Your task to perform on an android device: turn off improve location accuracy Image 0: 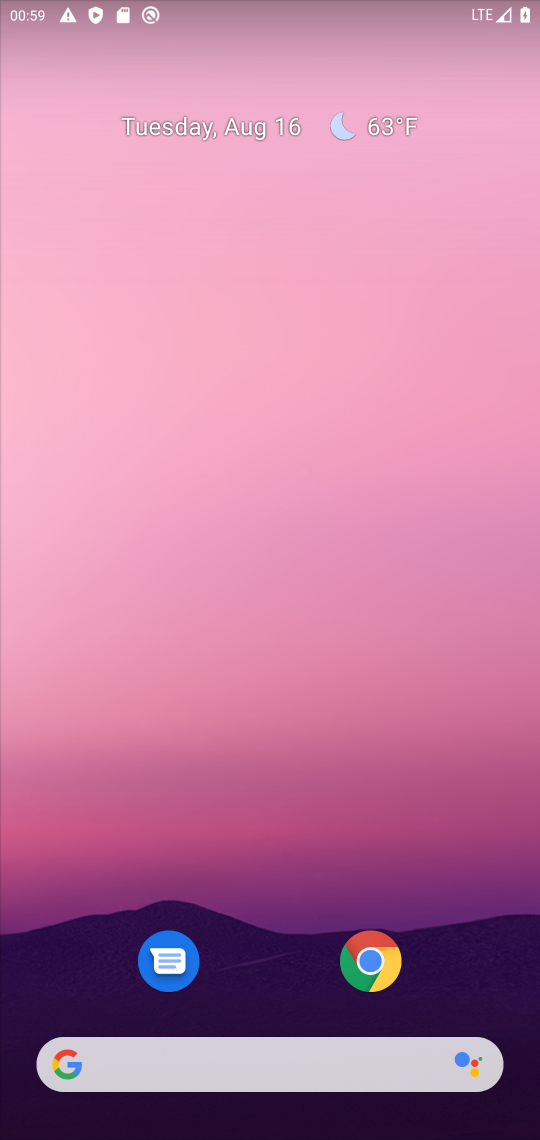
Step 0: press home button
Your task to perform on an android device: turn off improve location accuracy Image 1: 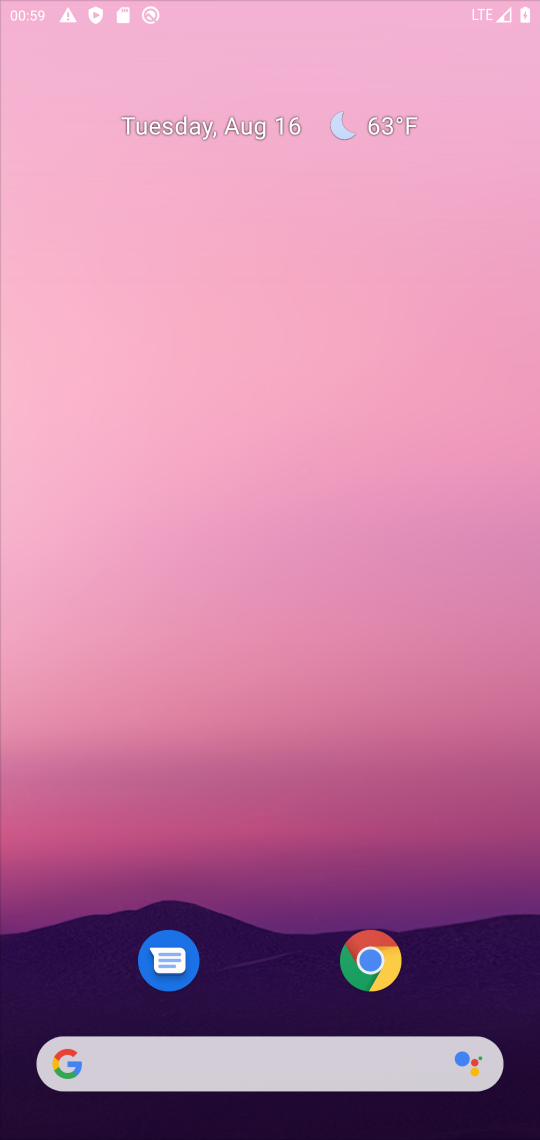
Step 1: press home button
Your task to perform on an android device: turn off improve location accuracy Image 2: 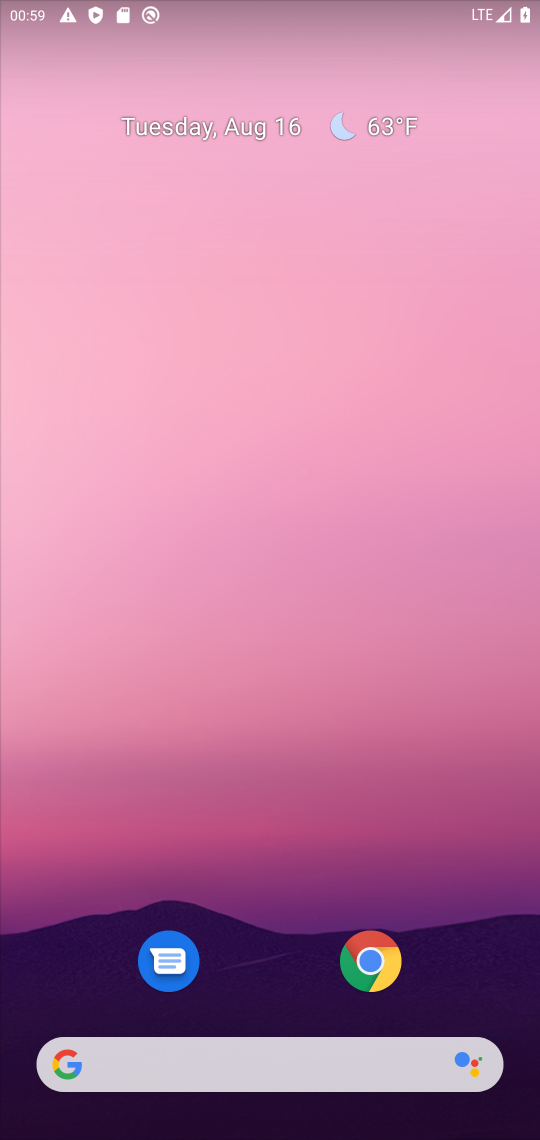
Step 2: drag from (211, 1046) to (461, 95)
Your task to perform on an android device: turn off improve location accuracy Image 3: 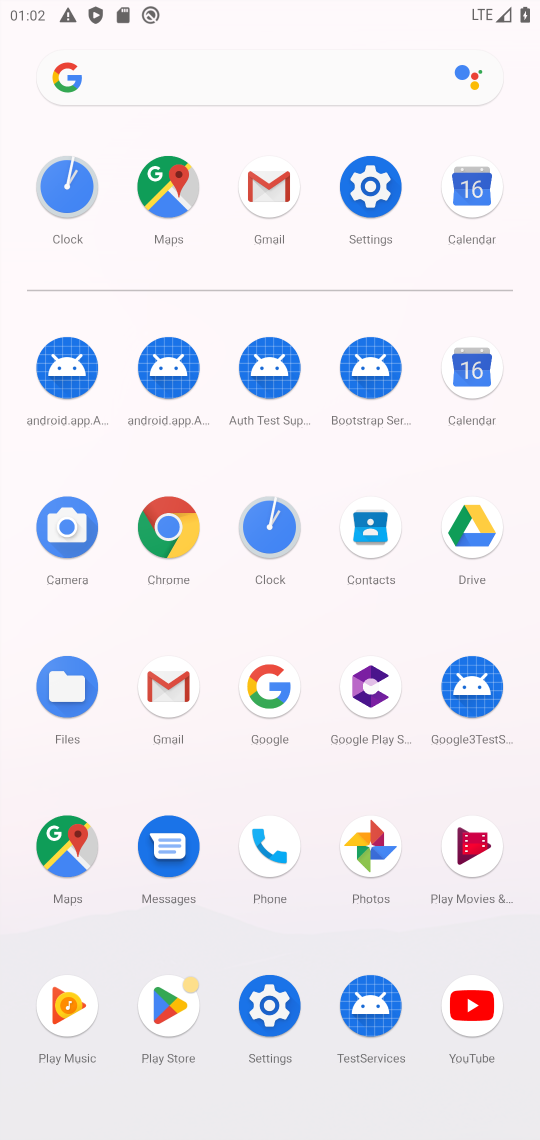
Step 3: click (274, 986)
Your task to perform on an android device: turn off improve location accuracy Image 4: 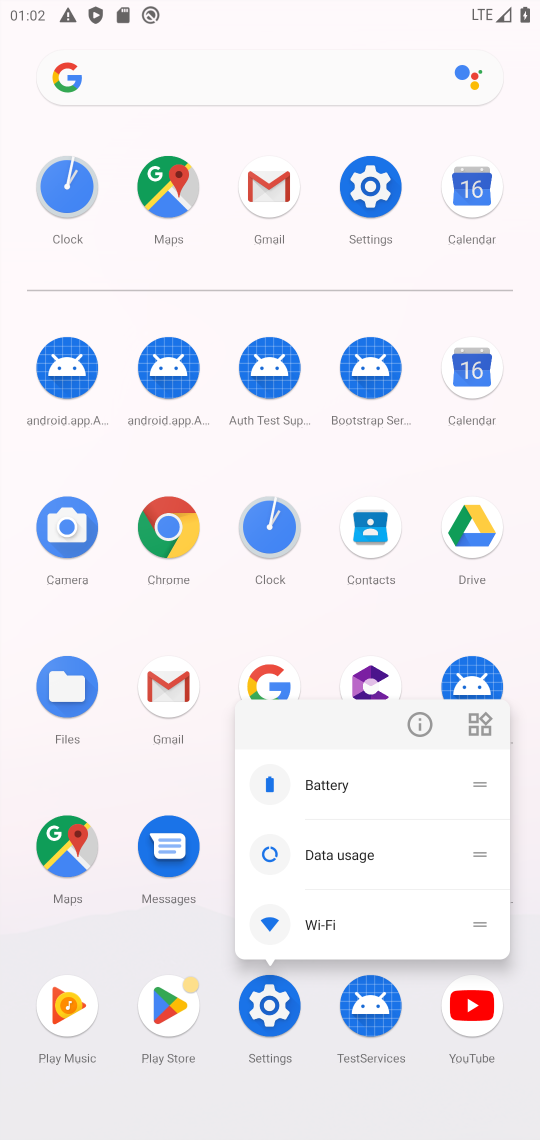
Step 4: click (274, 986)
Your task to perform on an android device: turn off improve location accuracy Image 5: 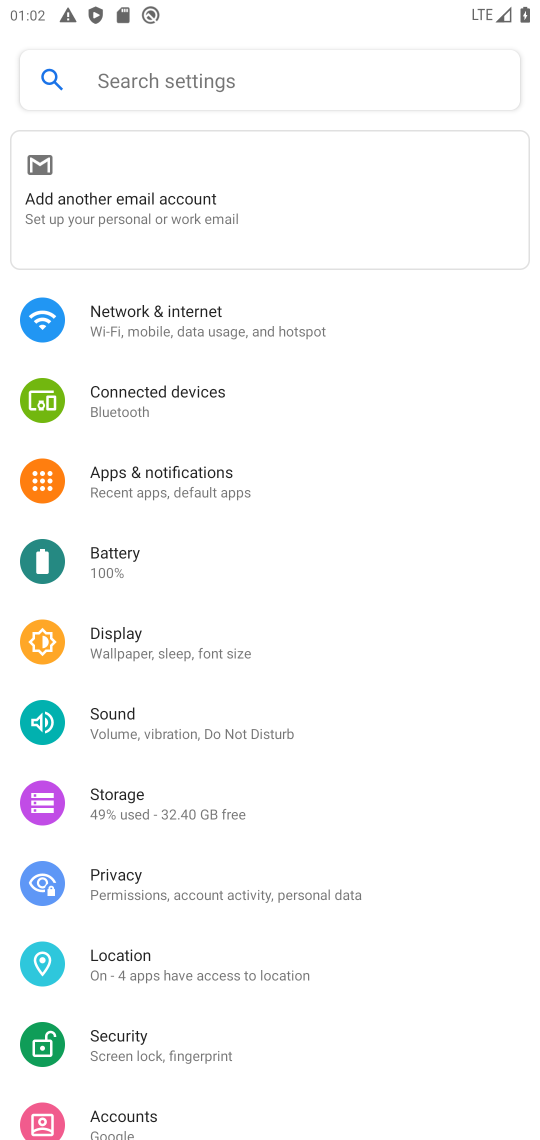
Step 5: drag from (267, 1034) to (282, 502)
Your task to perform on an android device: turn off improve location accuracy Image 6: 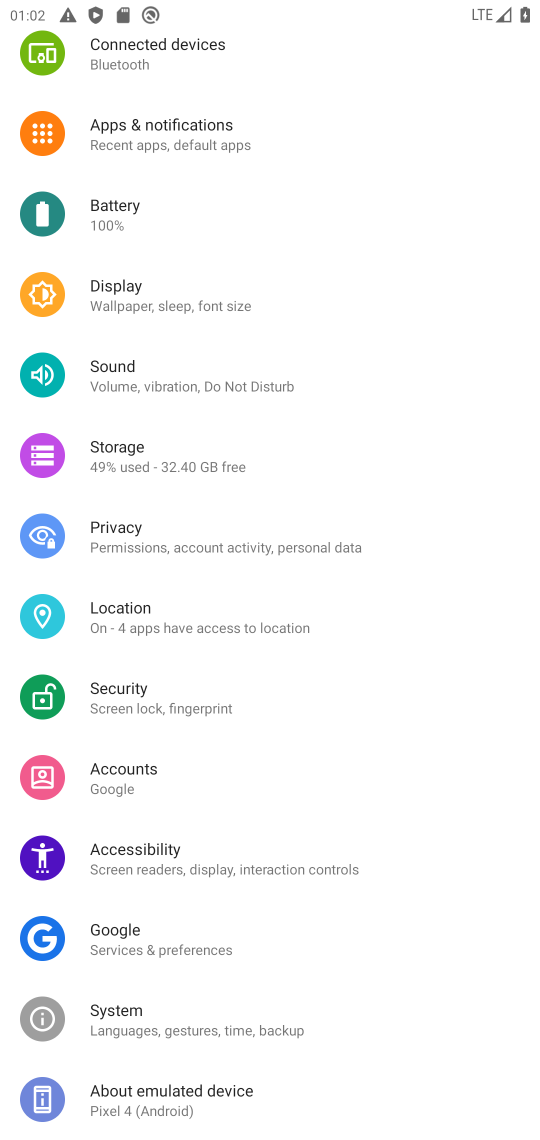
Step 6: click (166, 613)
Your task to perform on an android device: turn off improve location accuracy Image 7: 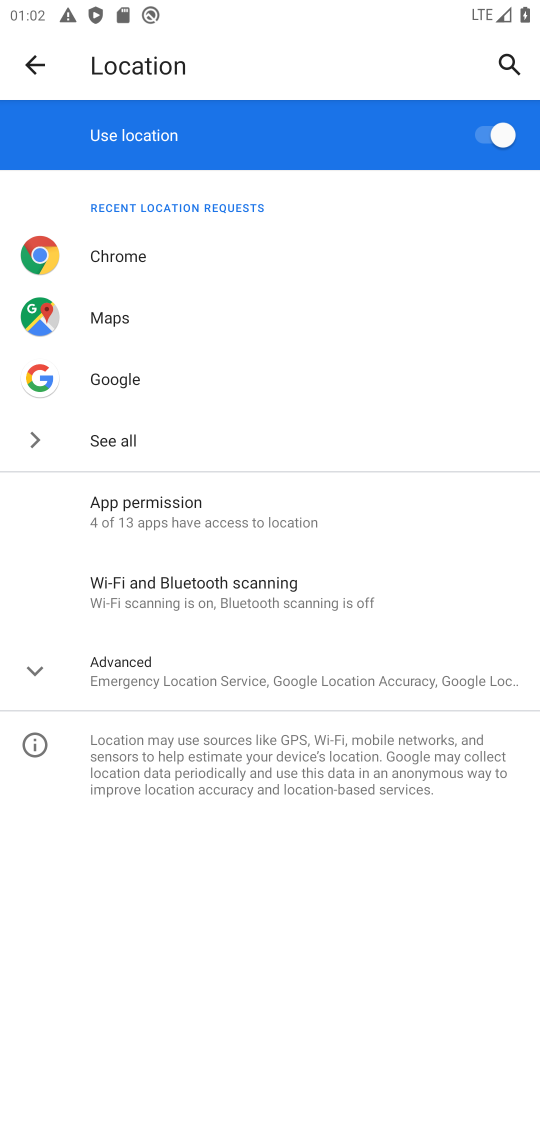
Step 7: click (230, 672)
Your task to perform on an android device: turn off improve location accuracy Image 8: 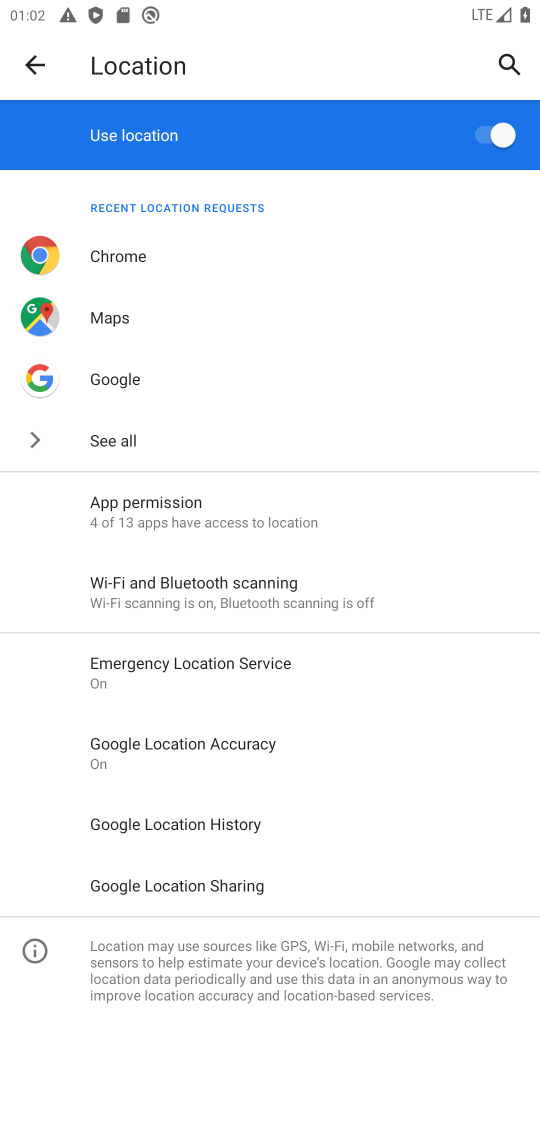
Step 8: click (182, 742)
Your task to perform on an android device: turn off improve location accuracy Image 9: 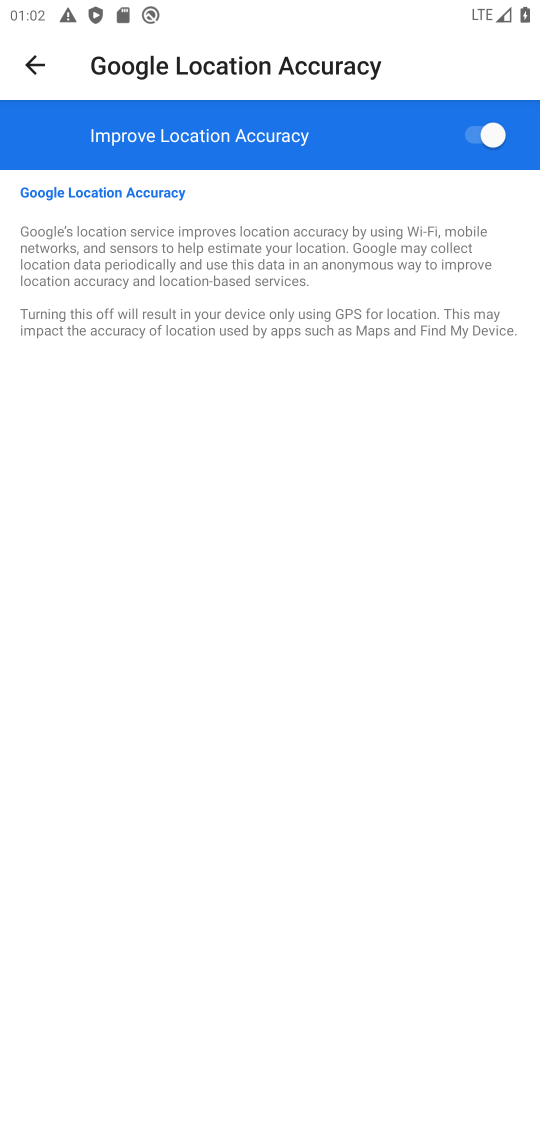
Step 9: click (277, 127)
Your task to perform on an android device: turn off improve location accuracy Image 10: 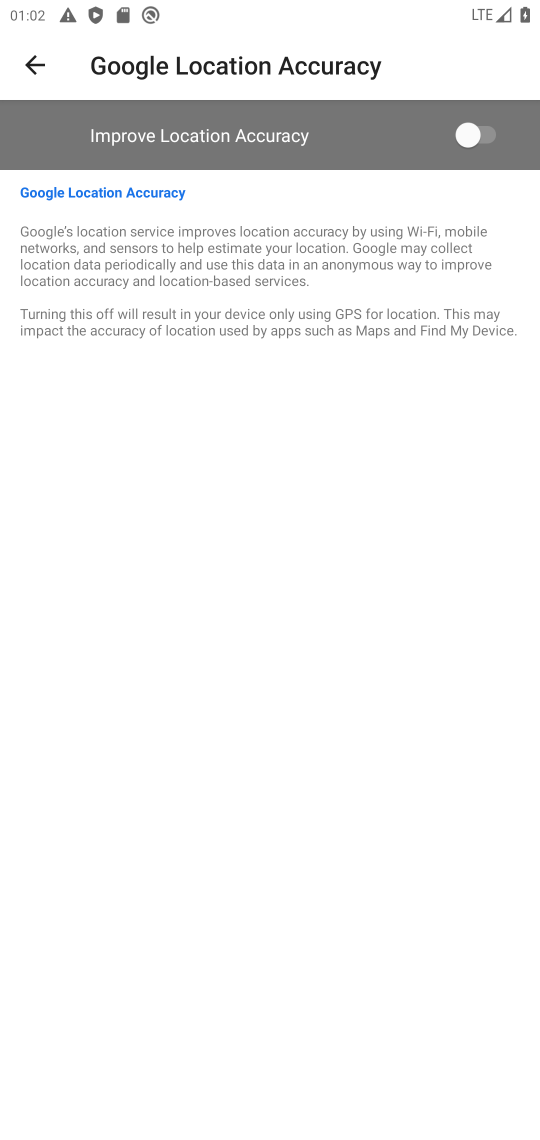
Step 10: task complete